Your task to perform on an android device: turn on data saver in the chrome app Image 0: 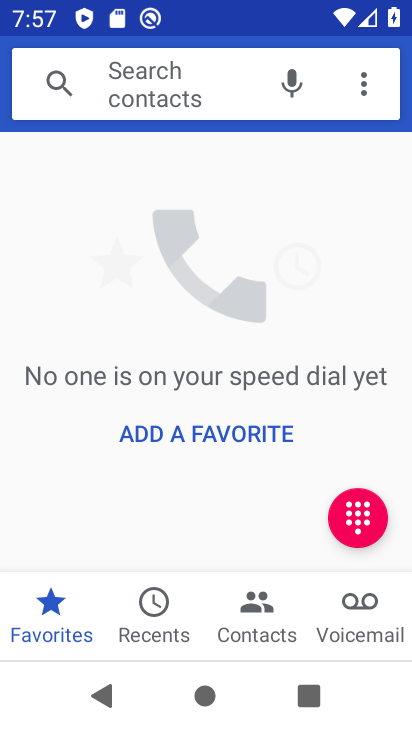
Step 0: press home button
Your task to perform on an android device: turn on data saver in the chrome app Image 1: 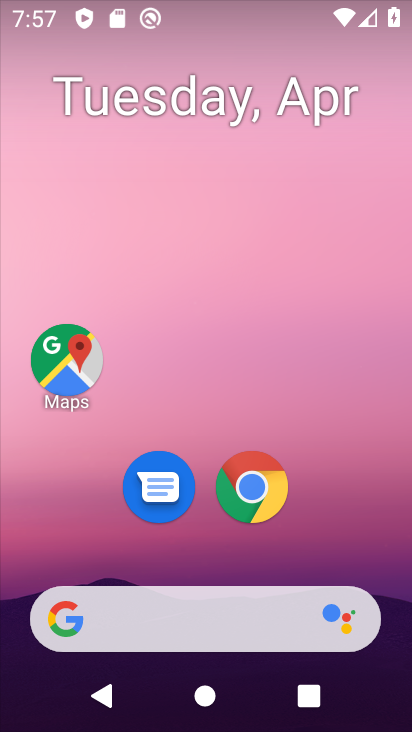
Step 1: drag from (183, 581) to (235, 262)
Your task to perform on an android device: turn on data saver in the chrome app Image 2: 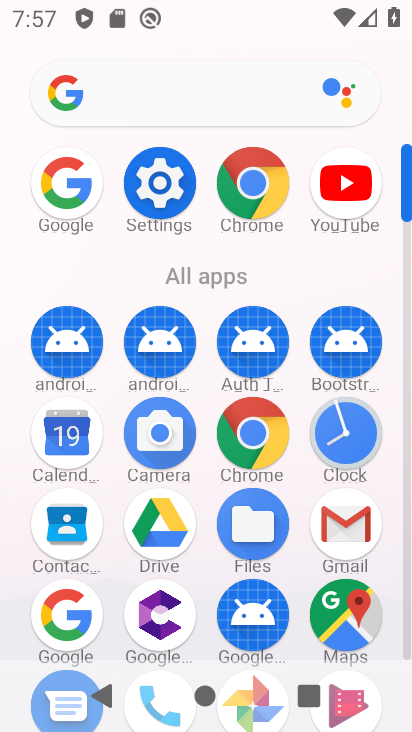
Step 2: click (252, 181)
Your task to perform on an android device: turn on data saver in the chrome app Image 3: 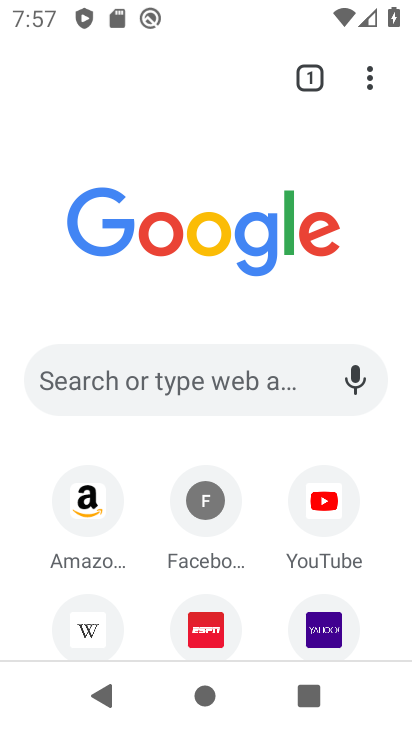
Step 3: click (370, 71)
Your task to perform on an android device: turn on data saver in the chrome app Image 4: 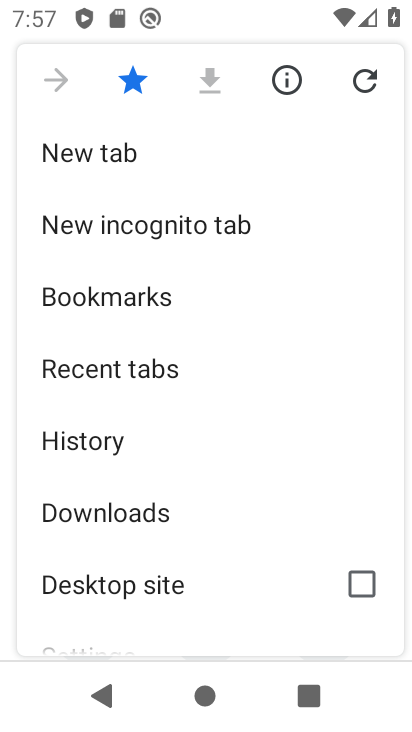
Step 4: drag from (173, 601) to (234, 227)
Your task to perform on an android device: turn on data saver in the chrome app Image 5: 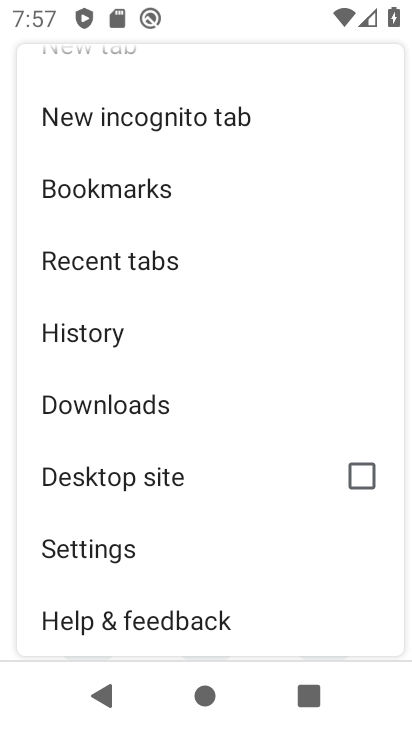
Step 5: click (127, 550)
Your task to perform on an android device: turn on data saver in the chrome app Image 6: 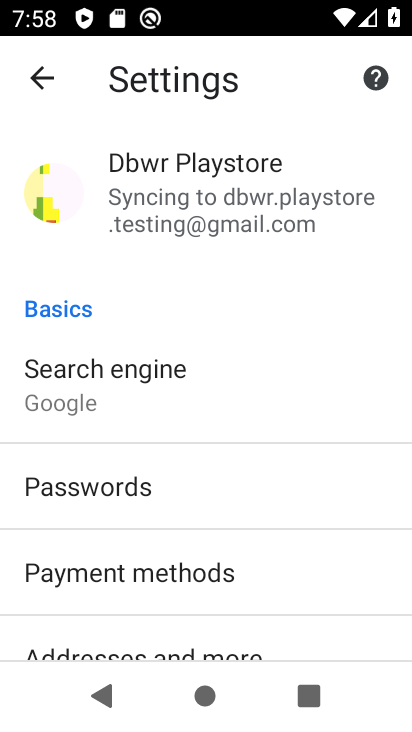
Step 6: drag from (141, 631) to (200, 244)
Your task to perform on an android device: turn on data saver in the chrome app Image 7: 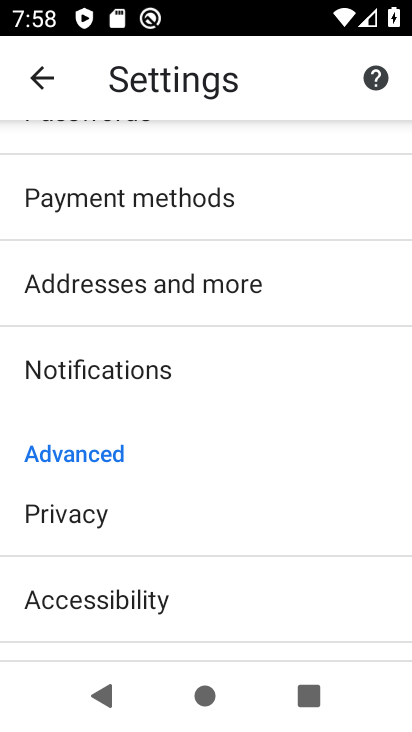
Step 7: drag from (148, 484) to (182, 317)
Your task to perform on an android device: turn on data saver in the chrome app Image 8: 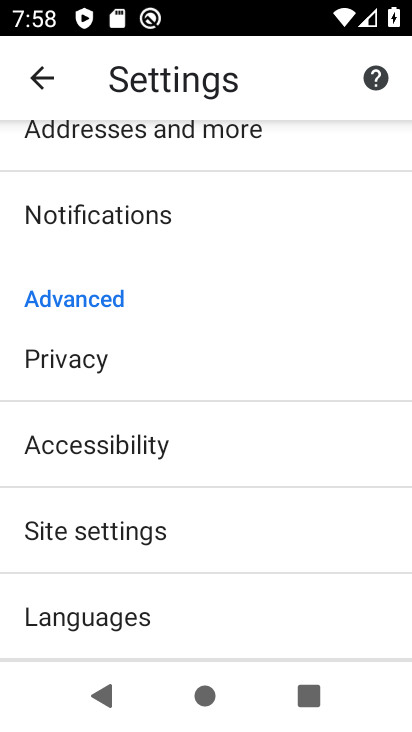
Step 8: drag from (92, 638) to (161, 366)
Your task to perform on an android device: turn on data saver in the chrome app Image 9: 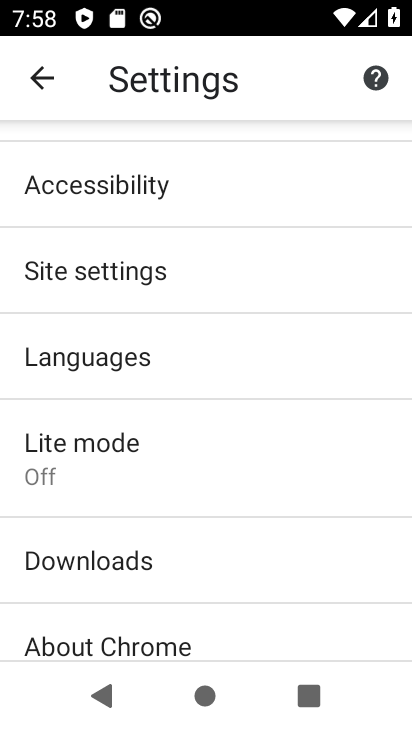
Step 9: click (93, 454)
Your task to perform on an android device: turn on data saver in the chrome app Image 10: 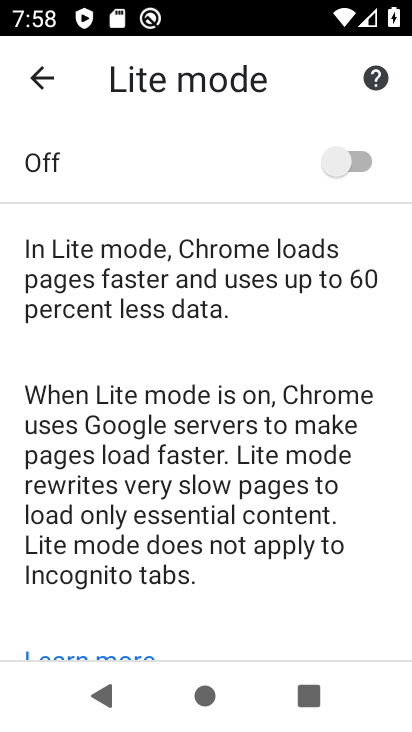
Step 10: click (359, 158)
Your task to perform on an android device: turn on data saver in the chrome app Image 11: 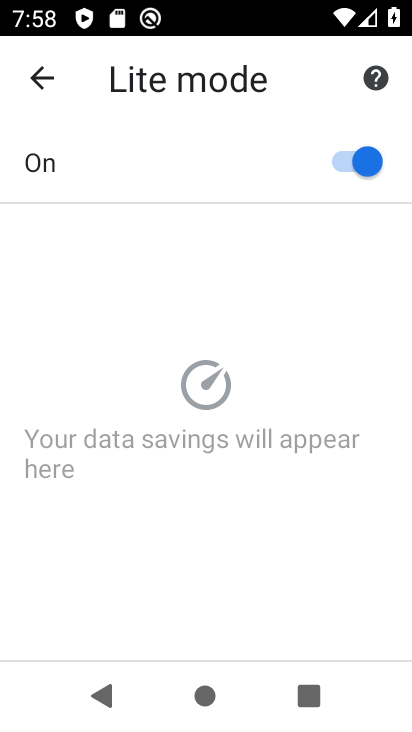
Step 11: task complete